Your task to perform on an android device: delete browsing data in the chrome app Image 0: 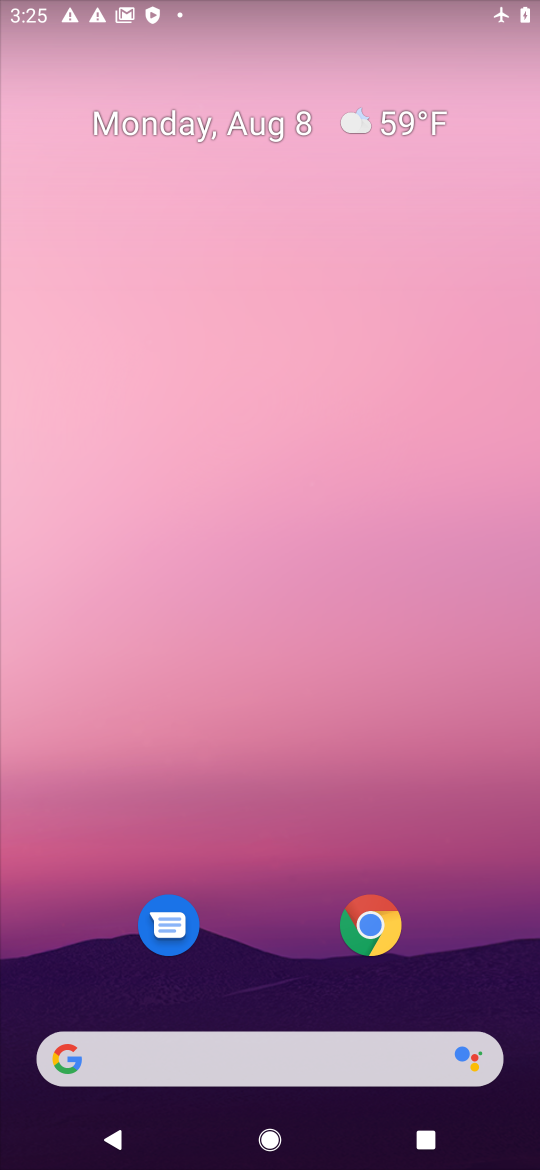
Step 0: click (379, 930)
Your task to perform on an android device: delete browsing data in the chrome app Image 1: 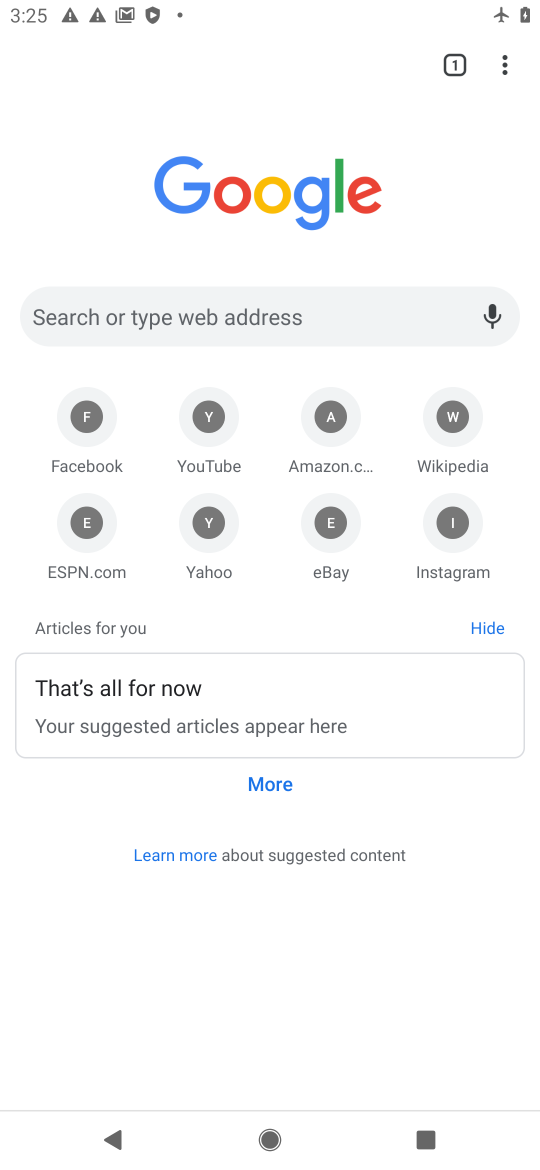
Step 1: task complete